Your task to perform on an android device: Go to settings Image 0: 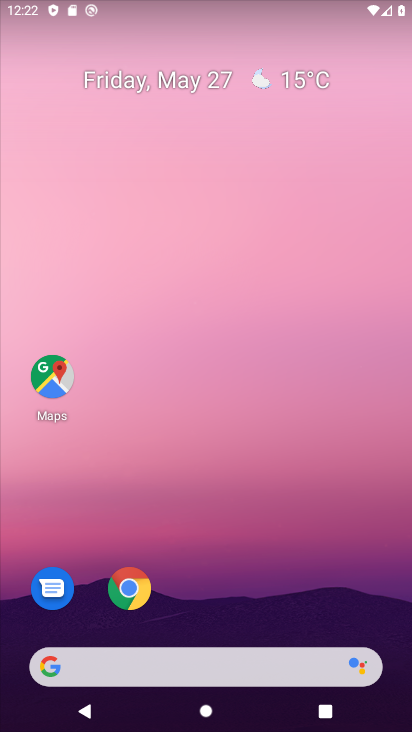
Step 0: drag from (372, 615) to (346, 143)
Your task to perform on an android device: Go to settings Image 1: 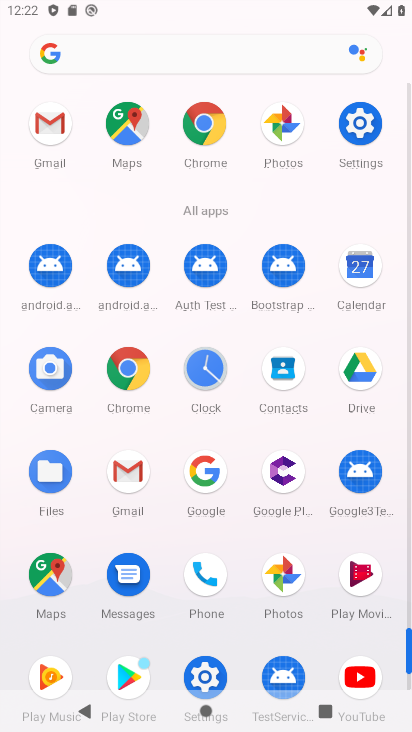
Step 1: click (410, 606)
Your task to perform on an android device: Go to settings Image 2: 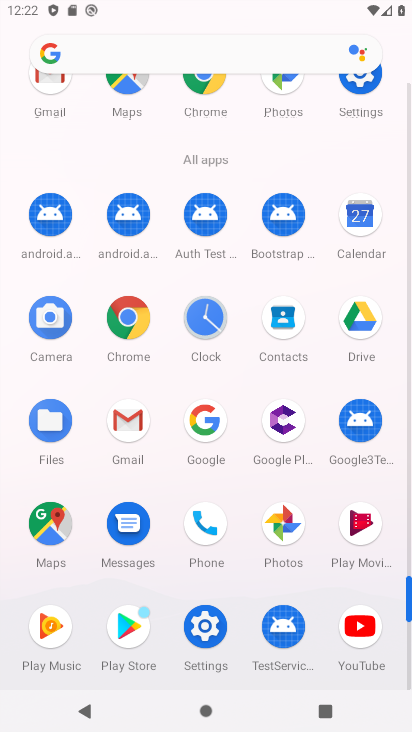
Step 2: click (207, 627)
Your task to perform on an android device: Go to settings Image 3: 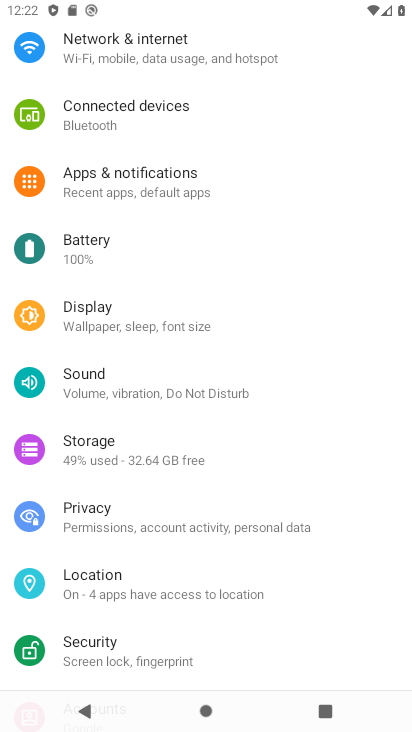
Step 3: task complete